Your task to perform on an android device: change the upload size in google photos Image 0: 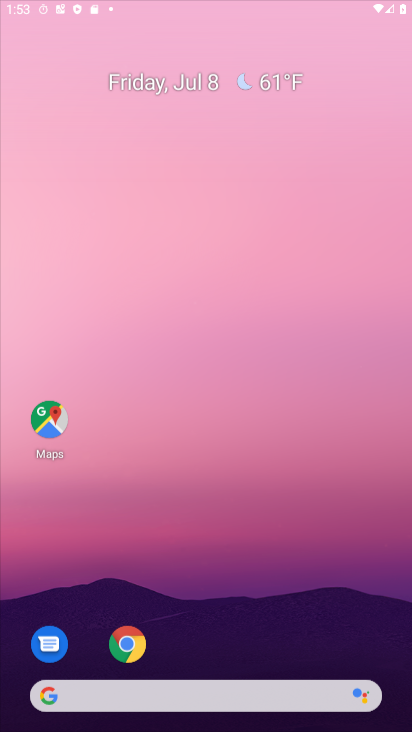
Step 0: press home button
Your task to perform on an android device: change the upload size in google photos Image 1: 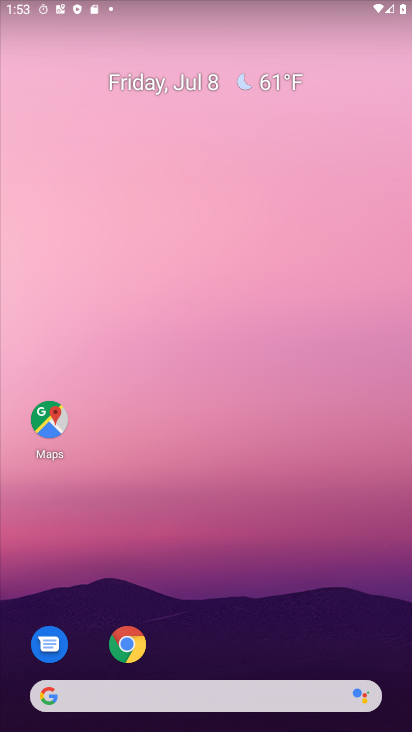
Step 1: drag from (195, 609) to (243, 15)
Your task to perform on an android device: change the upload size in google photos Image 2: 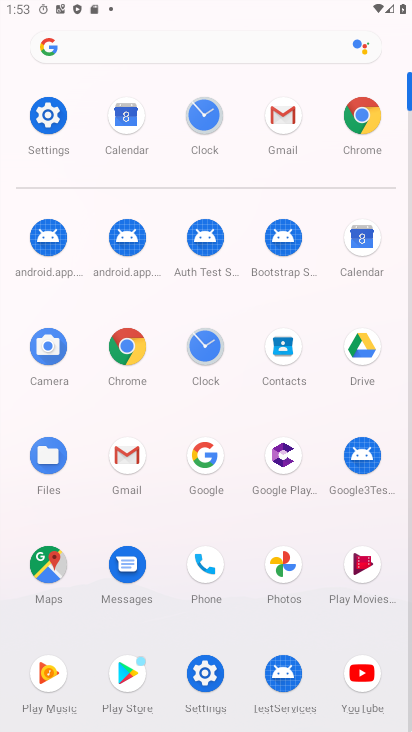
Step 2: click (286, 565)
Your task to perform on an android device: change the upload size in google photos Image 3: 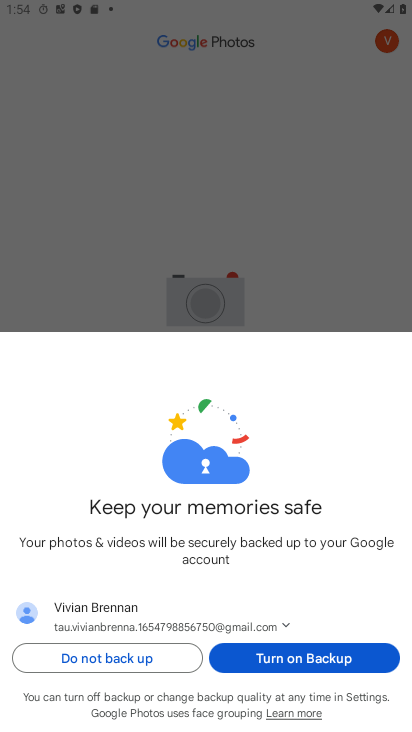
Step 3: click (118, 657)
Your task to perform on an android device: change the upload size in google photos Image 4: 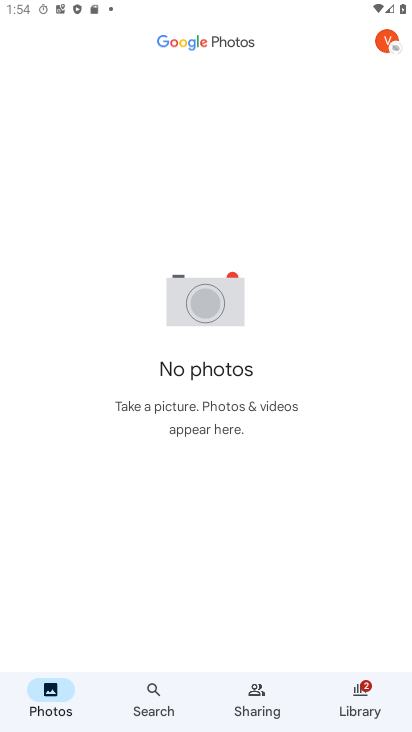
Step 4: click (383, 47)
Your task to perform on an android device: change the upload size in google photos Image 5: 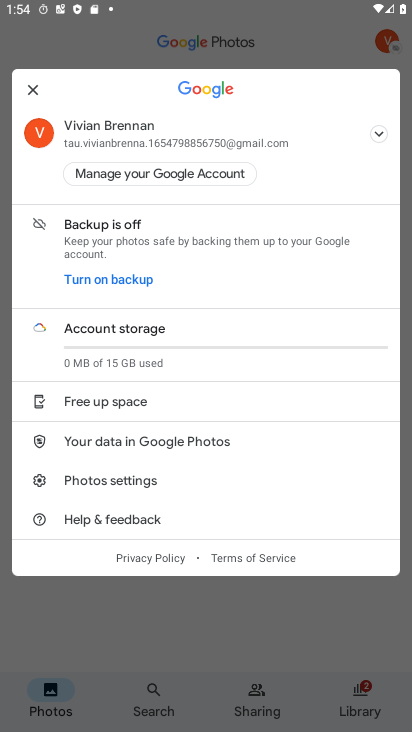
Step 5: click (141, 239)
Your task to perform on an android device: change the upload size in google photos Image 6: 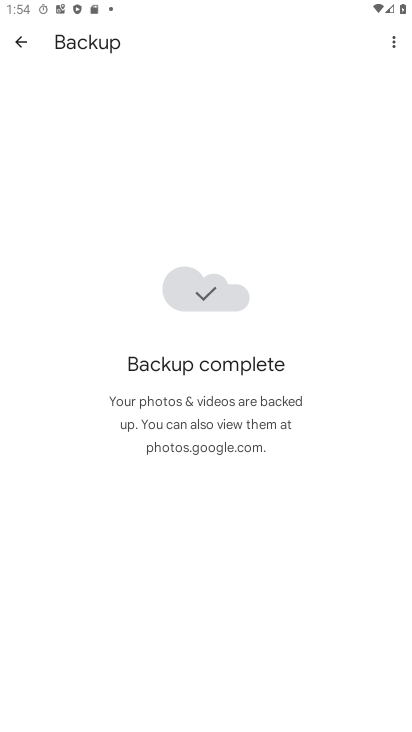
Step 6: click (202, 281)
Your task to perform on an android device: change the upload size in google photos Image 7: 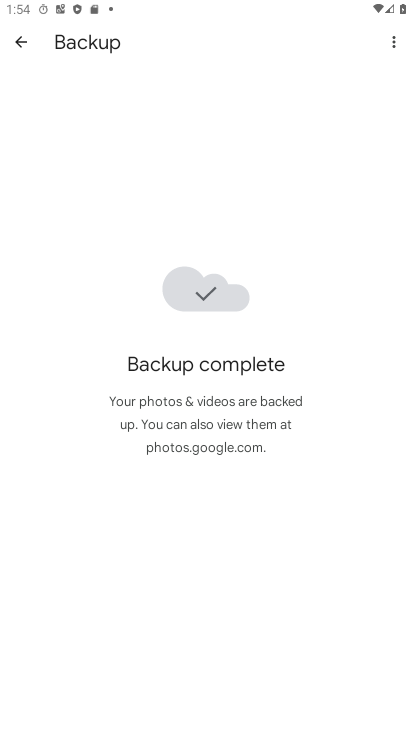
Step 7: click (395, 39)
Your task to perform on an android device: change the upload size in google photos Image 8: 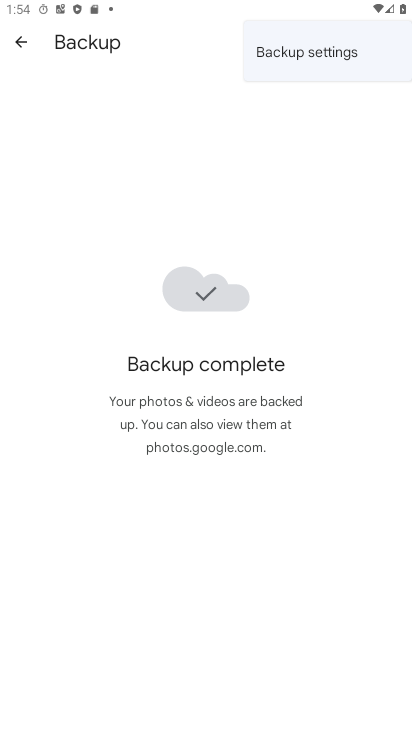
Step 8: click (290, 59)
Your task to perform on an android device: change the upload size in google photos Image 9: 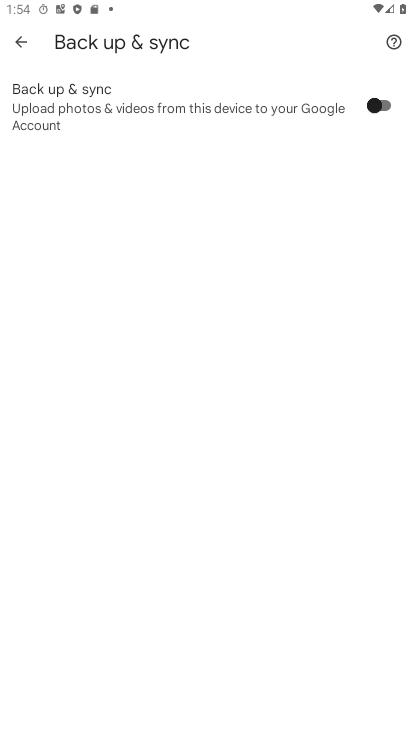
Step 9: click (390, 109)
Your task to perform on an android device: change the upload size in google photos Image 10: 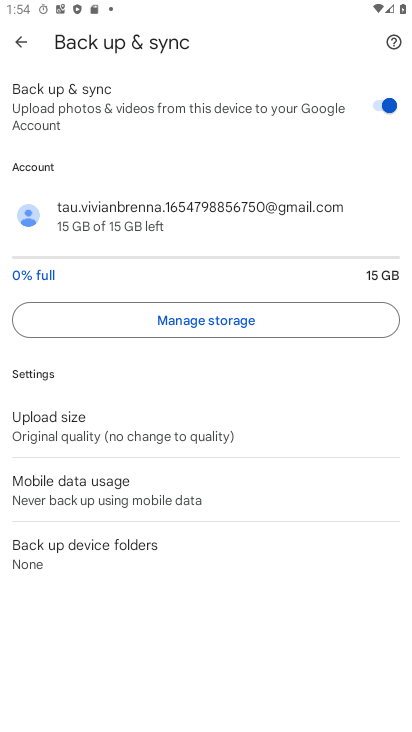
Step 10: click (185, 442)
Your task to perform on an android device: change the upload size in google photos Image 11: 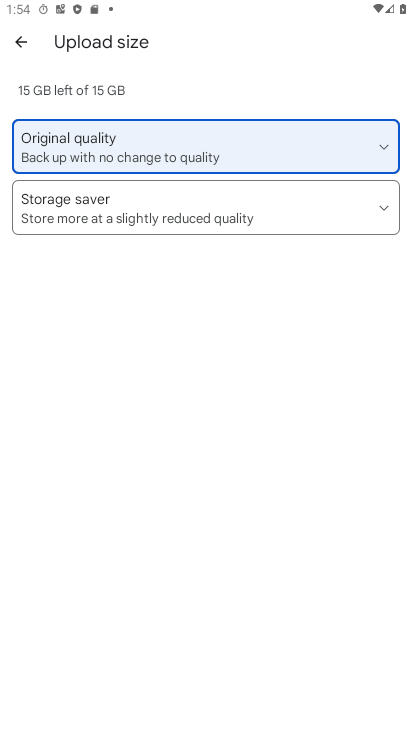
Step 11: click (328, 189)
Your task to perform on an android device: change the upload size in google photos Image 12: 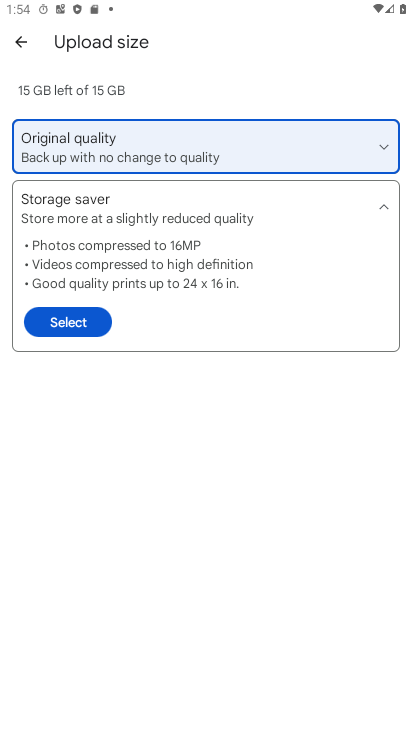
Step 12: click (58, 319)
Your task to perform on an android device: change the upload size in google photos Image 13: 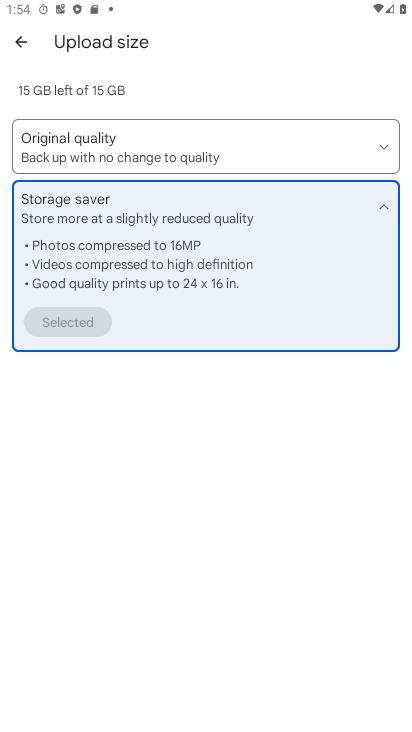
Step 13: press home button
Your task to perform on an android device: change the upload size in google photos Image 14: 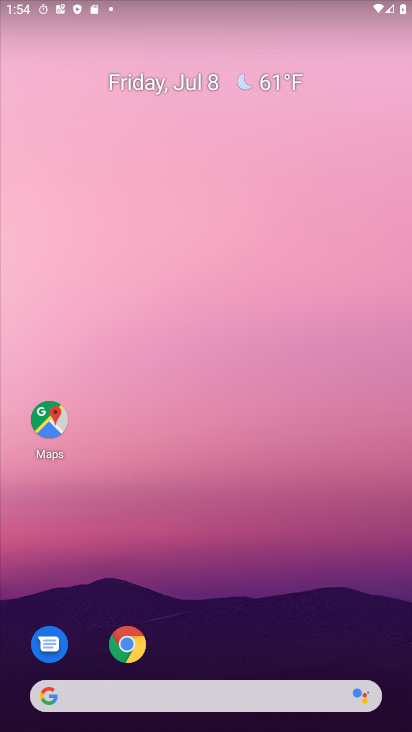
Step 14: drag from (216, 639) to (219, 147)
Your task to perform on an android device: change the upload size in google photos Image 15: 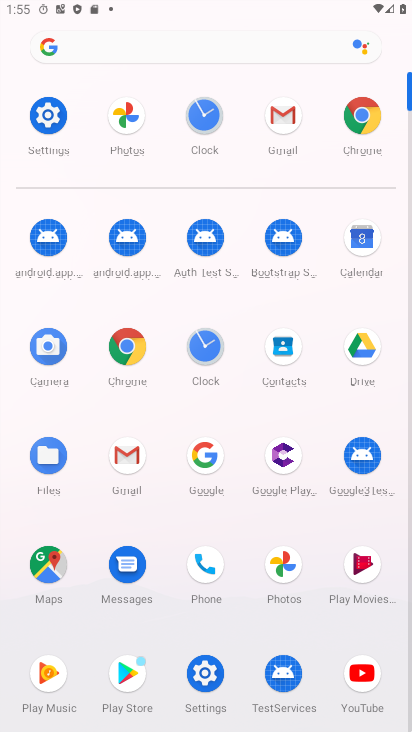
Step 15: click (275, 598)
Your task to perform on an android device: change the upload size in google photos Image 16: 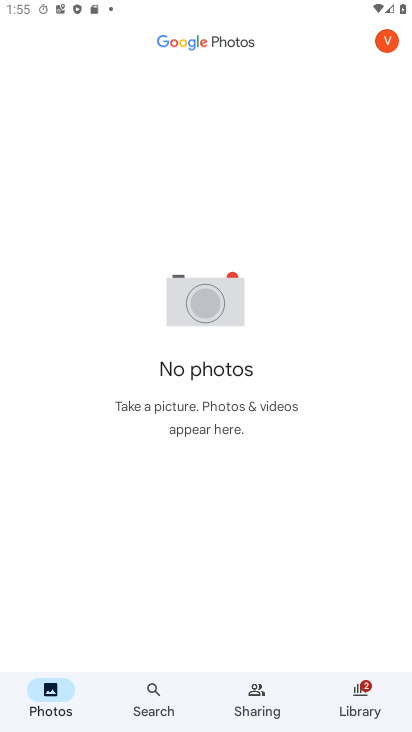
Step 16: click (386, 44)
Your task to perform on an android device: change the upload size in google photos Image 17: 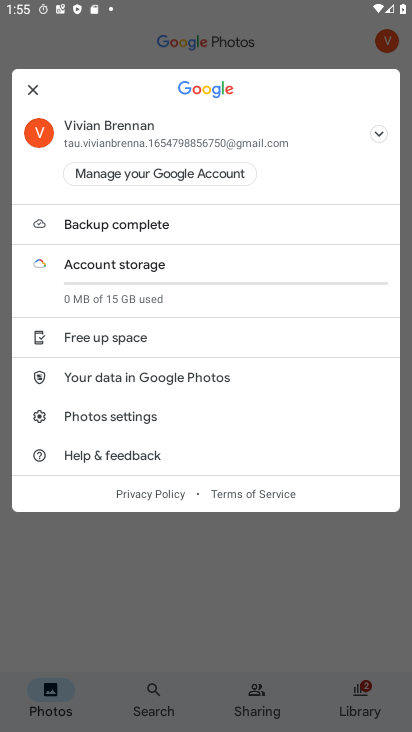
Step 17: click (197, 147)
Your task to perform on an android device: change the upload size in google photos Image 18: 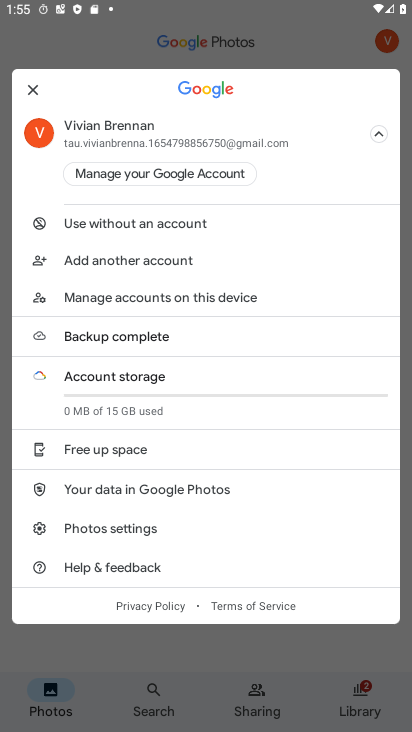
Step 18: click (267, 149)
Your task to perform on an android device: change the upload size in google photos Image 19: 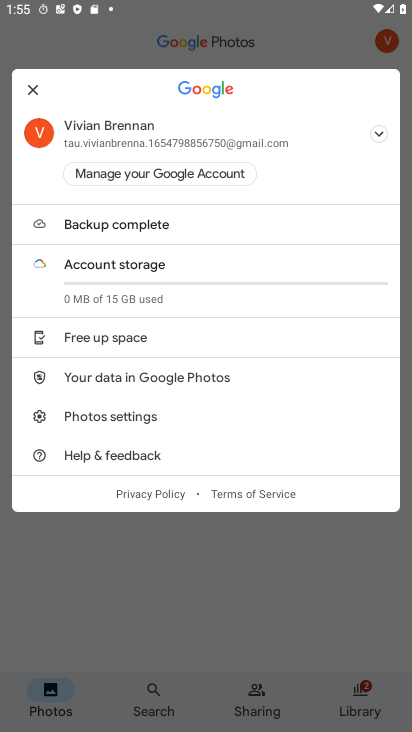
Step 19: click (142, 416)
Your task to perform on an android device: change the upload size in google photos Image 20: 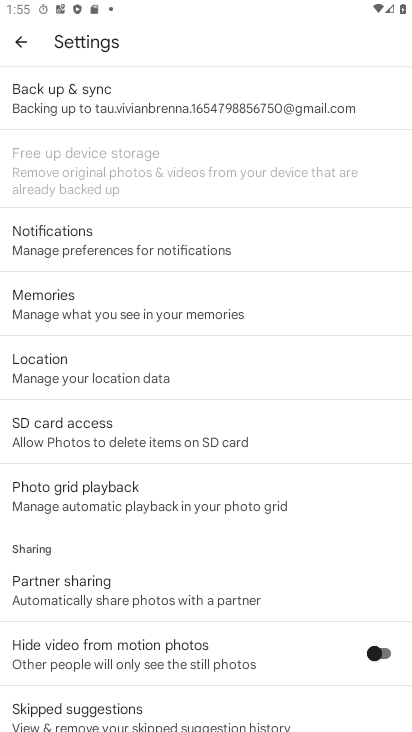
Step 20: click (154, 107)
Your task to perform on an android device: change the upload size in google photos Image 21: 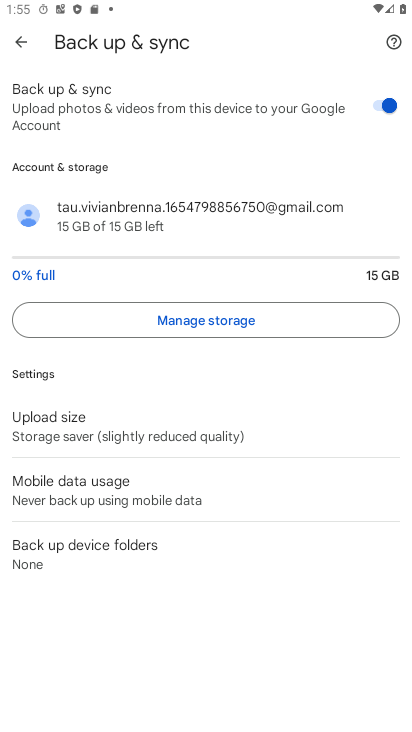
Step 21: click (77, 414)
Your task to perform on an android device: change the upload size in google photos Image 22: 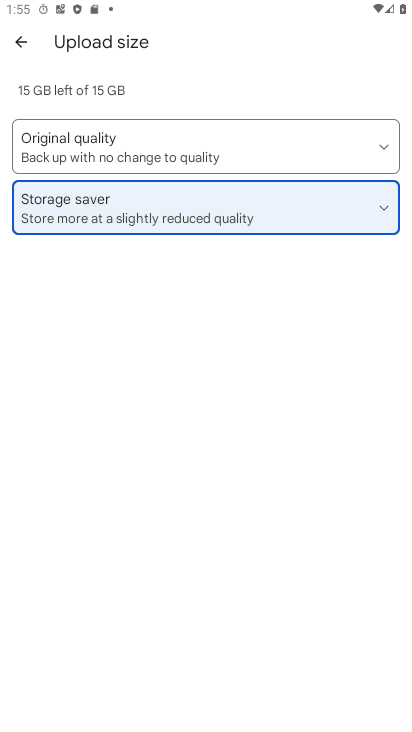
Step 22: click (341, 130)
Your task to perform on an android device: change the upload size in google photos Image 23: 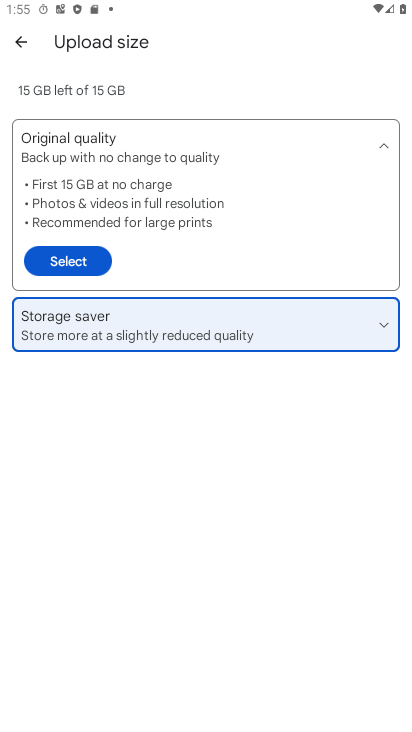
Step 23: click (35, 254)
Your task to perform on an android device: change the upload size in google photos Image 24: 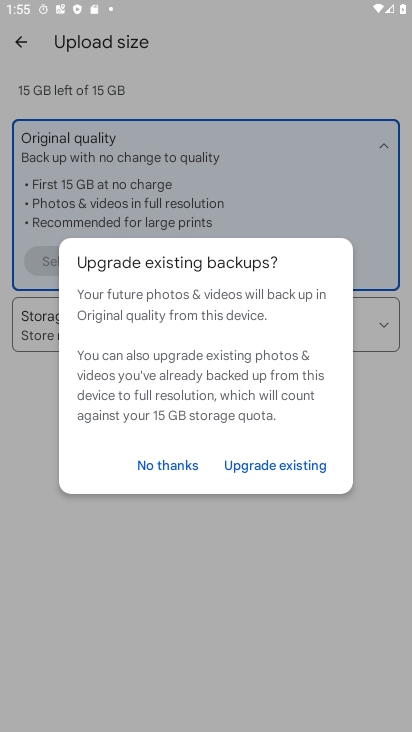
Step 24: click (158, 469)
Your task to perform on an android device: change the upload size in google photos Image 25: 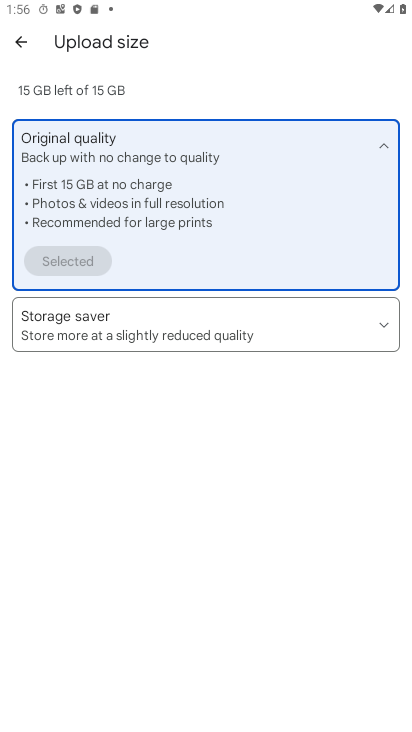
Step 25: task complete